Your task to perform on an android device: choose inbox layout in the gmail app Image 0: 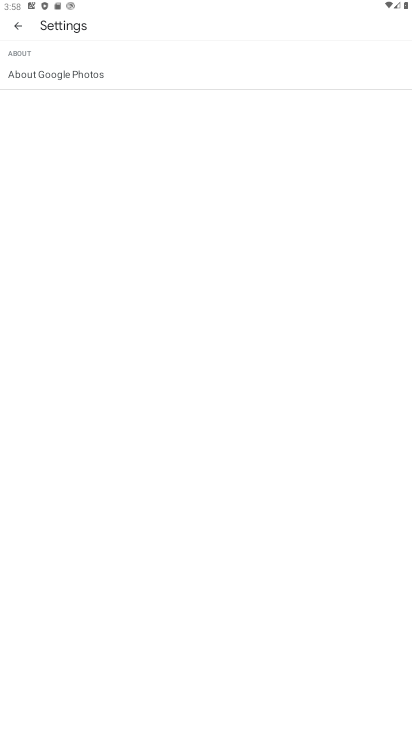
Step 0: press home button
Your task to perform on an android device: choose inbox layout in the gmail app Image 1: 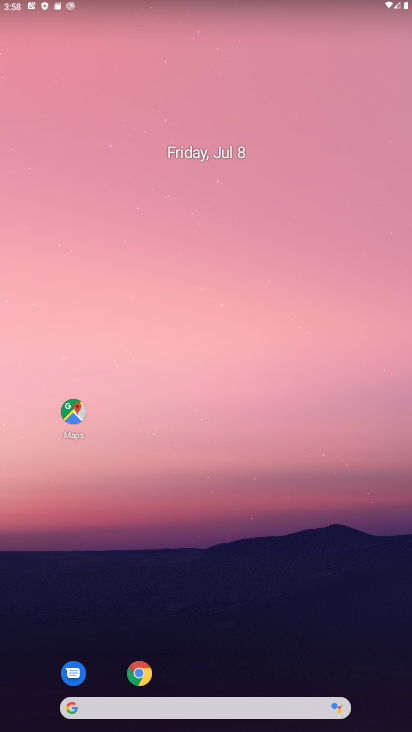
Step 1: drag from (231, 681) to (234, 66)
Your task to perform on an android device: choose inbox layout in the gmail app Image 2: 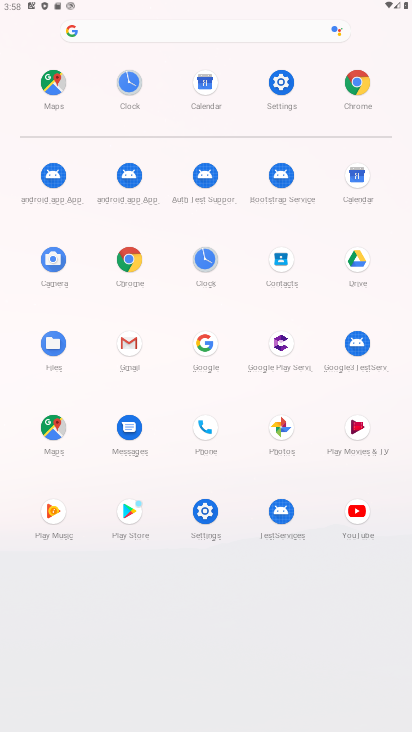
Step 2: click (135, 346)
Your task to perform on an android device: choose inbox layout in the gmail app Image 3: 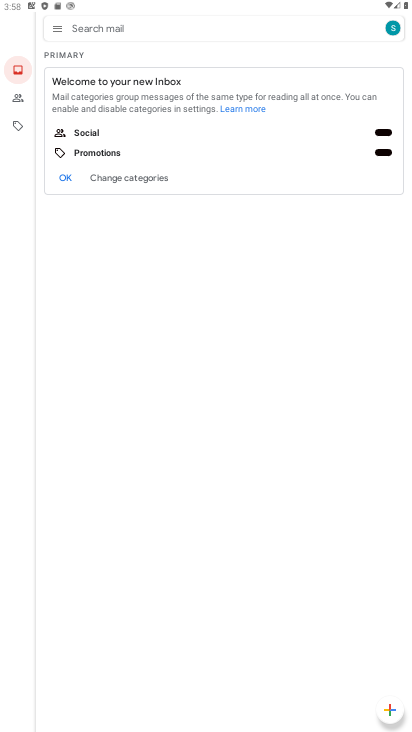
Step 3: click (55, 24)
Your task to perform on an android device: choose inbox layout in the gmail app Image 4: 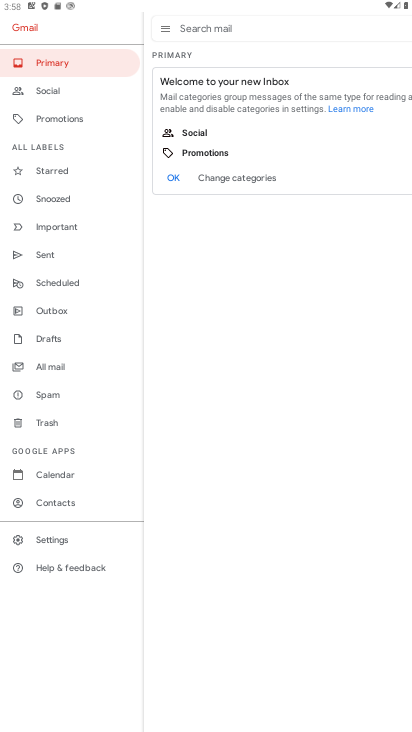
Step 4: click (63, 540)
Your task to perform on an android device: choose inbox layout in the gmail app Image 5: 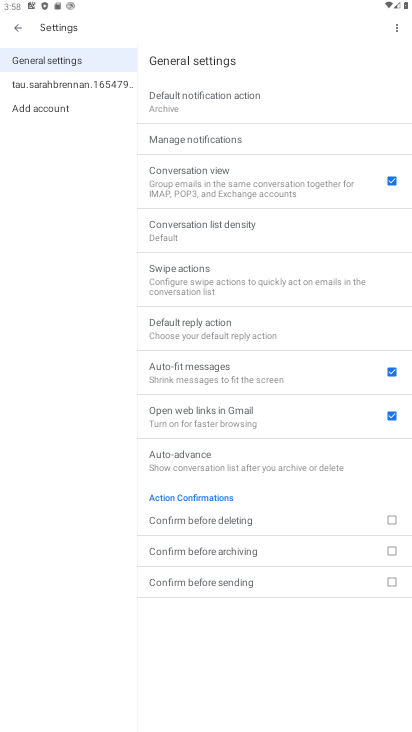
Step 5: click (71, 85)
Your task to perform on an android device: choose inbox layout in the gmail app Image 6: 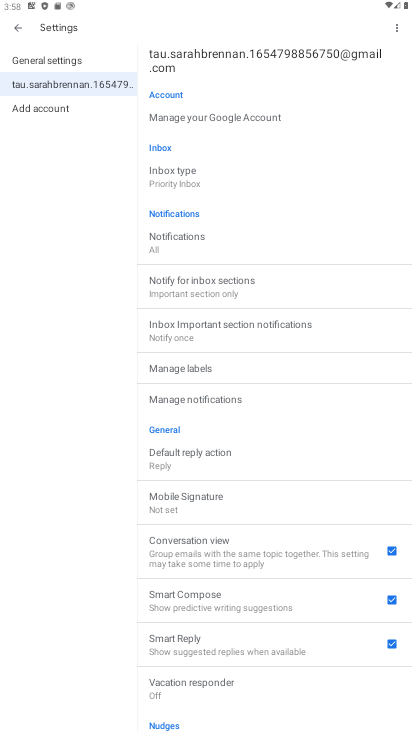
Step 6: click (176, 173)
Your task to perform on an android device: choose inbox layout in the gmail app Image 7: 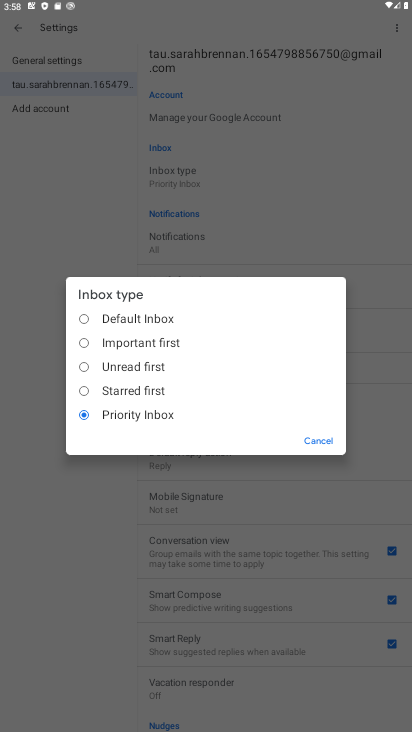
Step 7: click (88, 385)
Your task to perform on an android device: choose inbox layout in the gmail app Image 8: 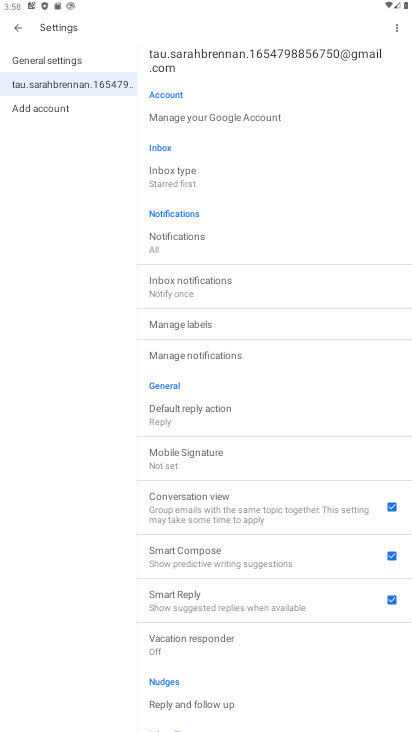
Step 8: task complete